Your task to perform on an android device: add a contact Image 0: 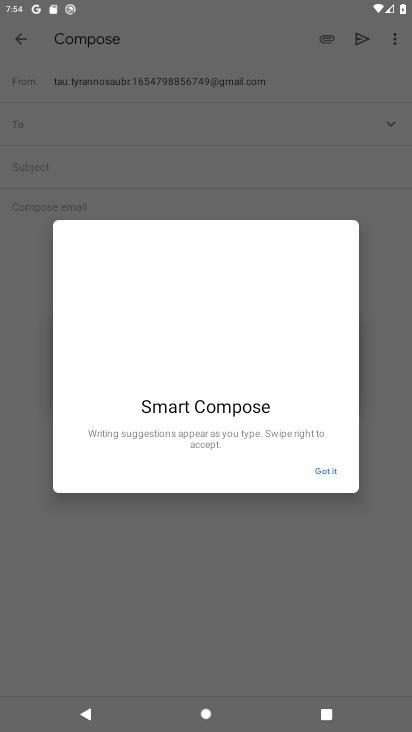
Step 0: press home button
Your task to perform on an android device: add a contact Image 1: 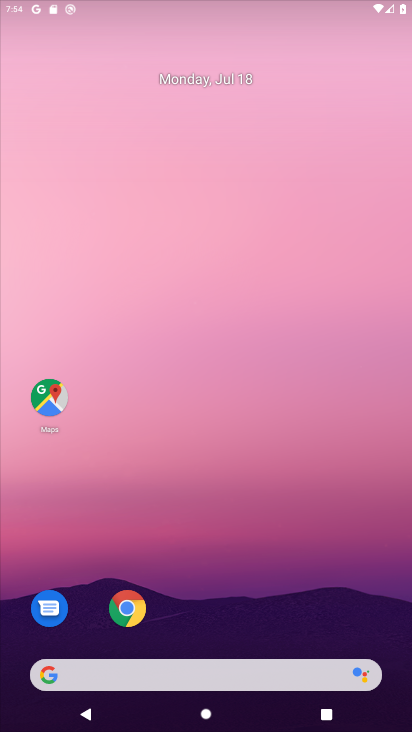
Step 1: drag from (204, 648) to (138, 49)
Your task to perform on an android device: add a contact Image 2: 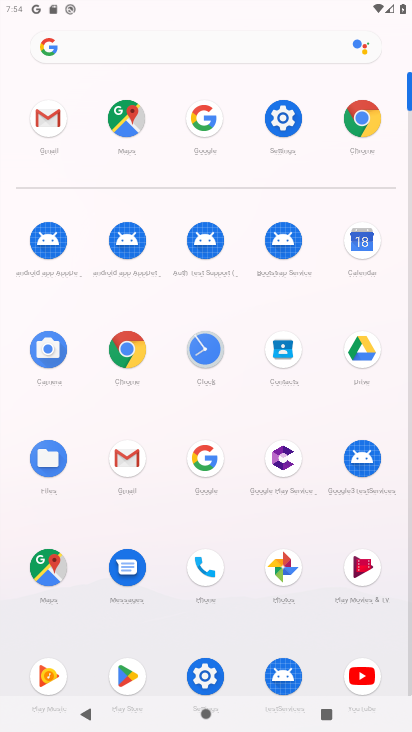
Step 2: click (221, 592)
Your task to perform on an android device: add a contact Image 3: 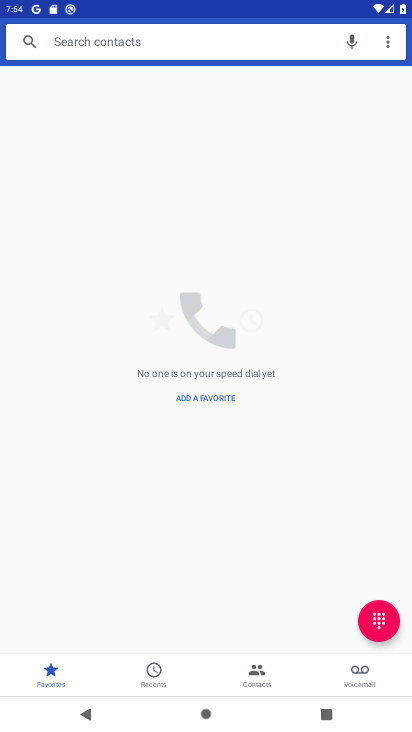
Step 3: click (270, 668)
Your task to perform on an android device: add a contact Image 4: 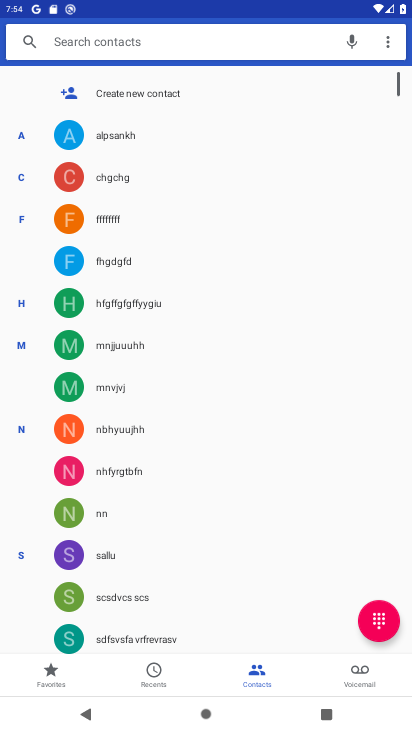
Step 4: click (83, 84)
Your task to perform on an android device: add a contact Image 5: 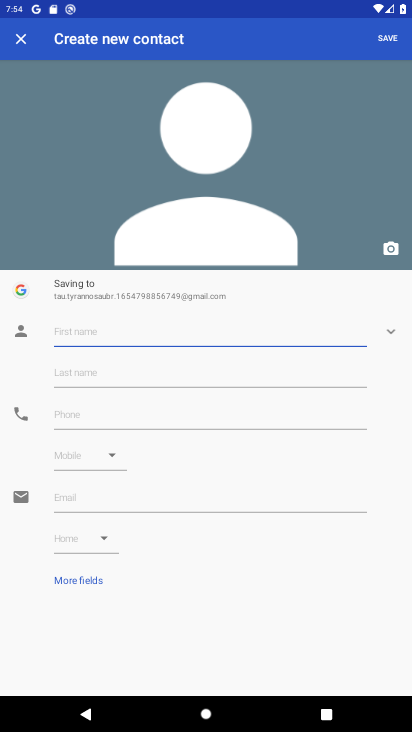
Step 5: type "kjj"
Your task to perform on an android device: add a contact Image 6: 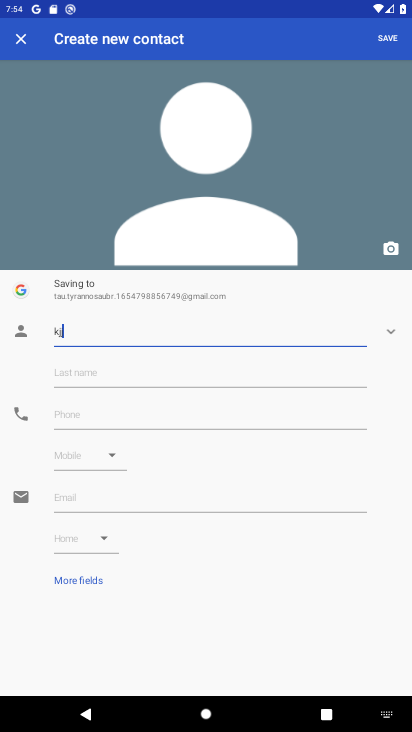
Step 6: click (270, 421)
Your task to perform on an android device: add a contact Image 7: 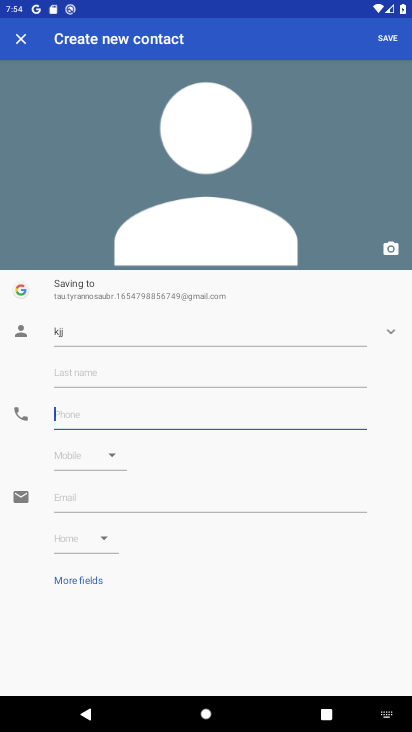
Step 7: type "0009"
Your task to perform on an android device: add a contact Image 8: 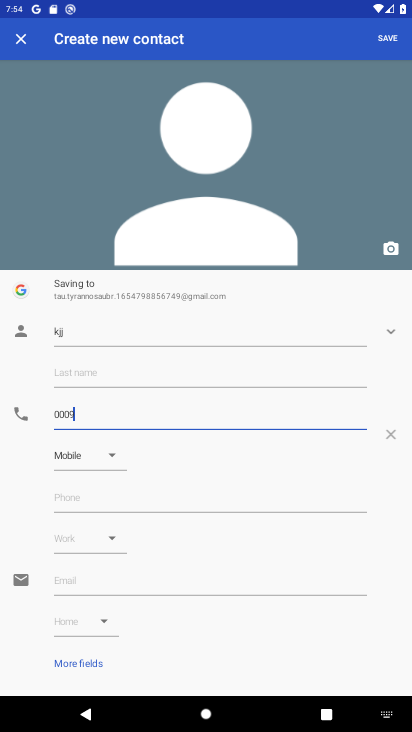
Step 8: click (379, 39)
Your task to perform on an android device: add a contact Image 9: 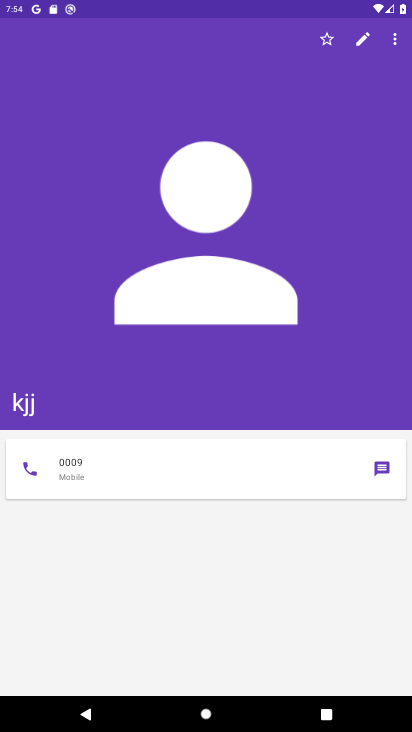
Step 9: task complete